Your task to perform on an android device: turn off smart reply in the gmail app Image 0: 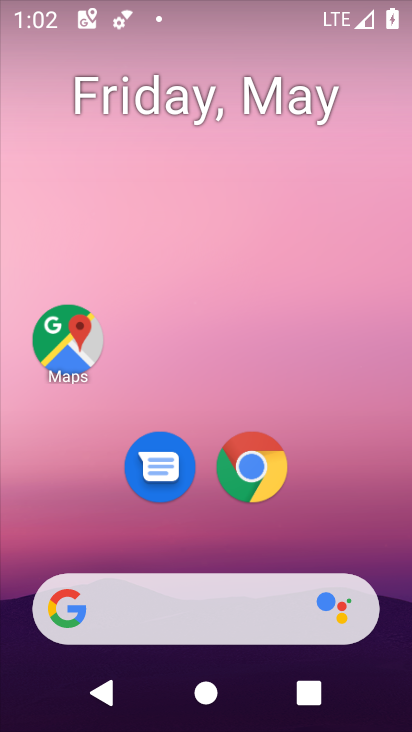
Step 0: drag from (349, 506) to (367, 31)
Your task to perform on an android device: turn off smart reply in the gmail app Image 1: 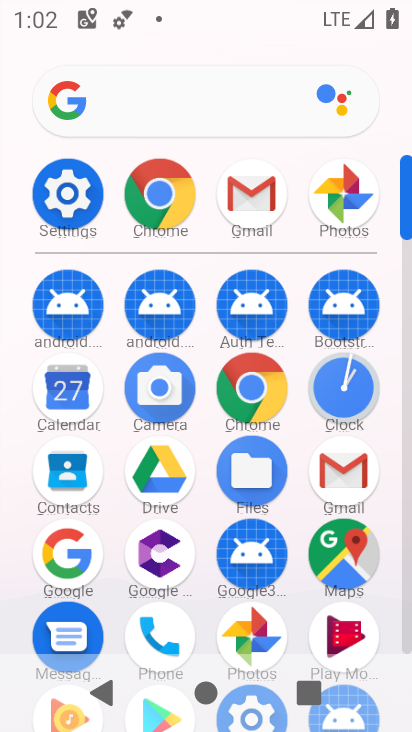
Step 1: click (264, 200)
Your task to perform on an android device: turn off smart reply in the gmail app Image 2: 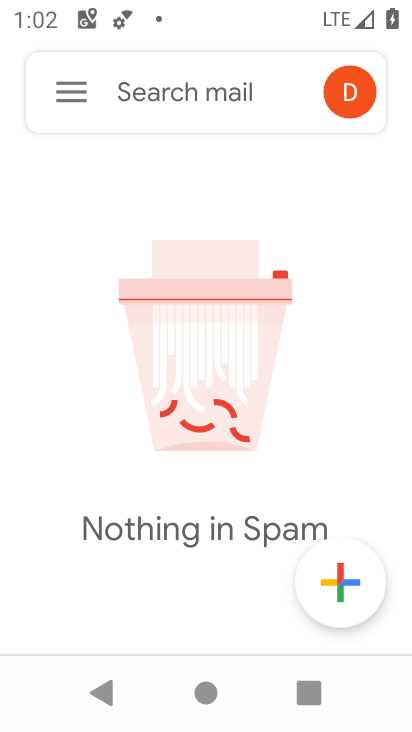
Step 2: click (79, 98)
Your task to perform on an android device: turn off smart reply in the gmail app Image 3: 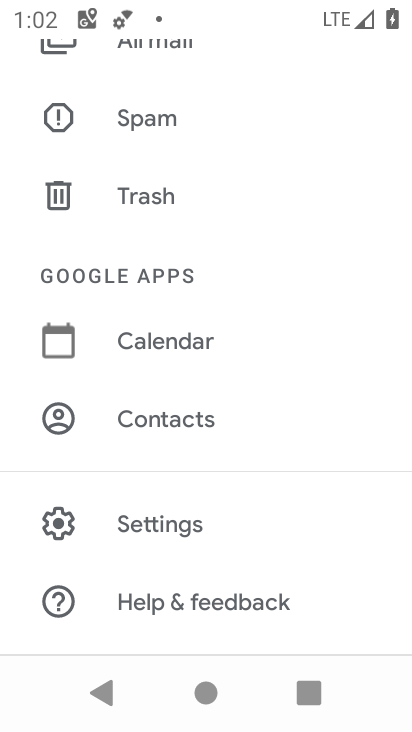
Step 3: drag from (177, 559) to (242, 182)
Your task to perform on an android device: turn off smart reply in the gmail app Image 4: 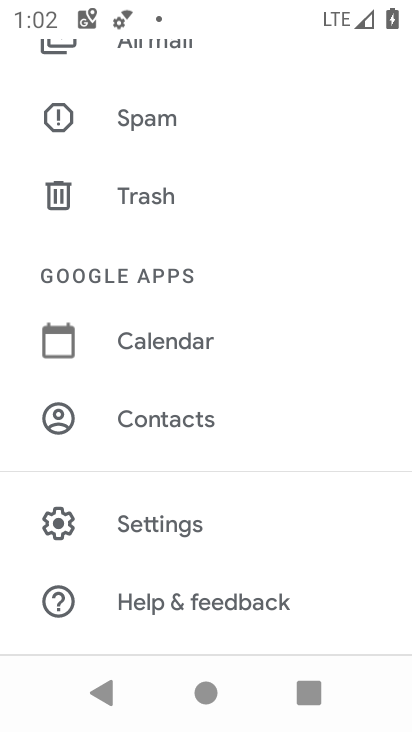
Step 4: click (160, 511)
Your task to perform on an android device: turn off smart reply in the gmail app Image 5: 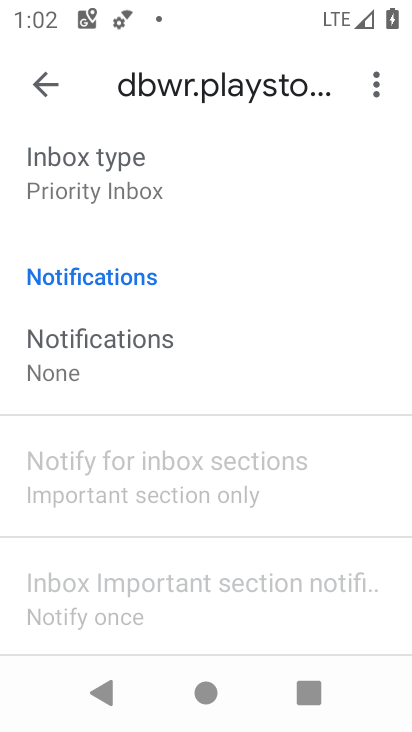
Step 5: drag from (125, 526) to (204, 72)
Your task to perform on an android device: turn off smart reply in the gmail app Image 6: 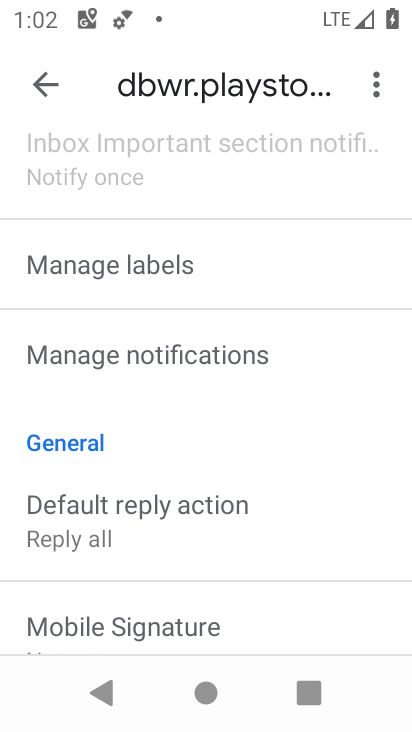
Step 6: drag from (246, 647) to (236, 201)
Your task to perform on an android device: turn off smart reply in the gmail app Image 7: 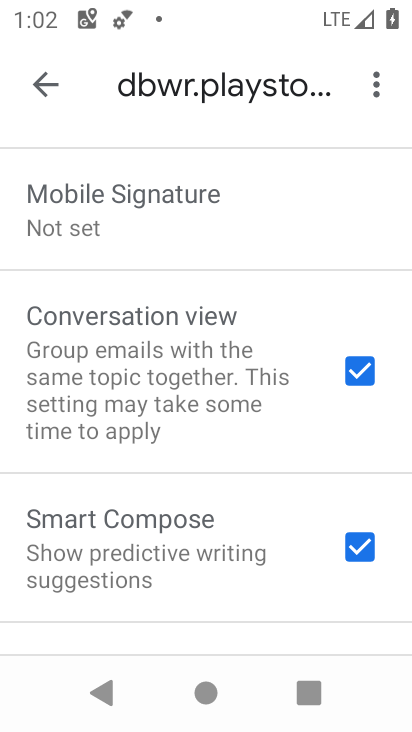
Step 7: drag from (237, 574) to (218, 169)
Your task to perform on an android device: turn off smart reply in the gmail app Image 8: 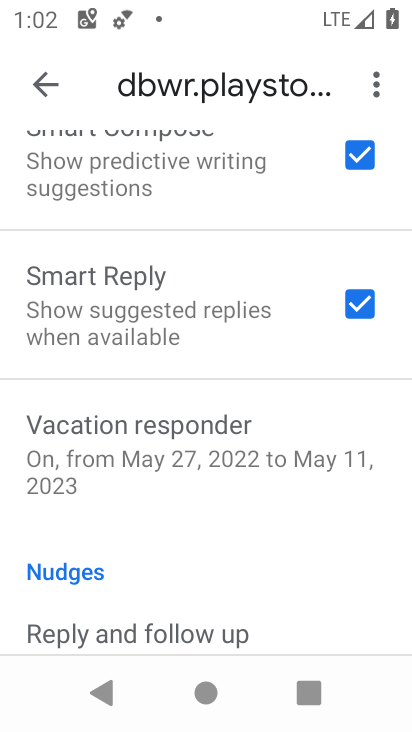
Step 8: drag from (231, 575) to (230, 175)
Your task to perform on an android device: turn off smart reply in the gmail app Image 9: 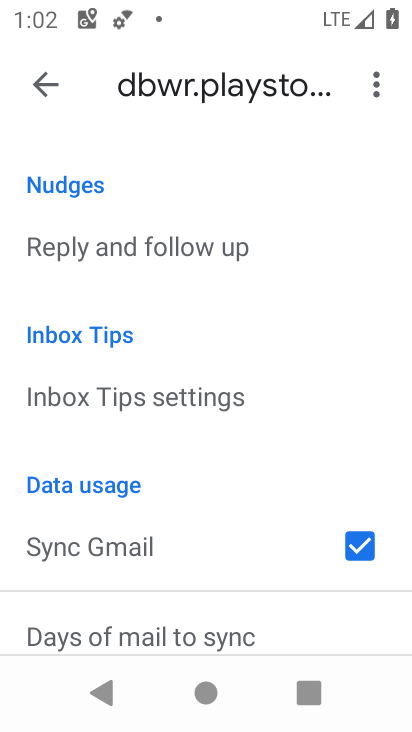
Step 9: drag from (209, 561) to (236, 125)
Your task to perform on an android device: turn off smart reply in the gmail app Image 10: 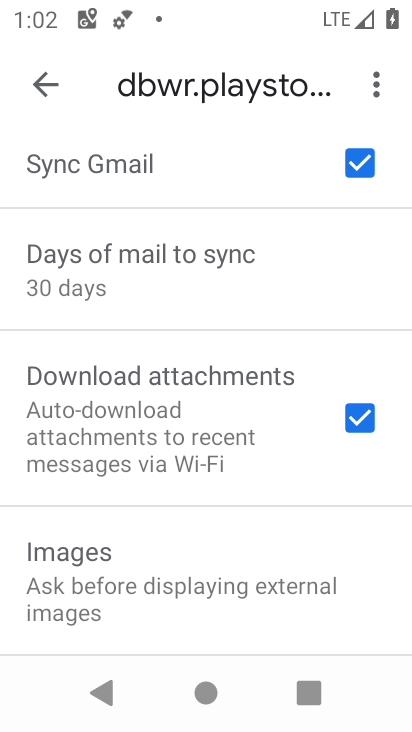
Step 10: drag from (211, 155) to (230, 541)
Your task to perform on an android device: turn off smart reply in the gmail app Image 11: 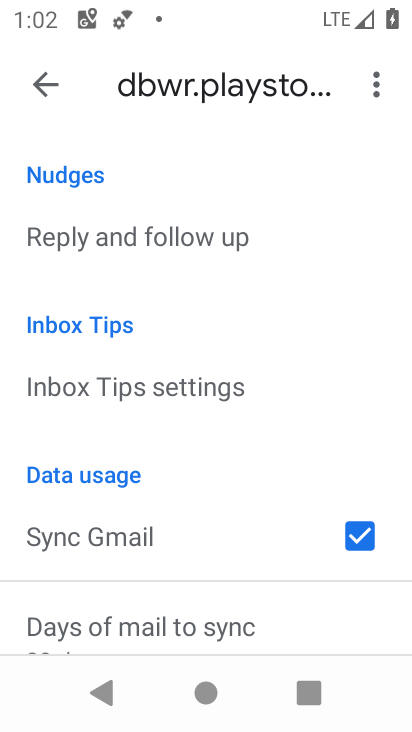
Step 11: drag from (252, 212) to (243, 609)
Your task to perform on an android device: turn off smart reply in the gmail app Image 12: 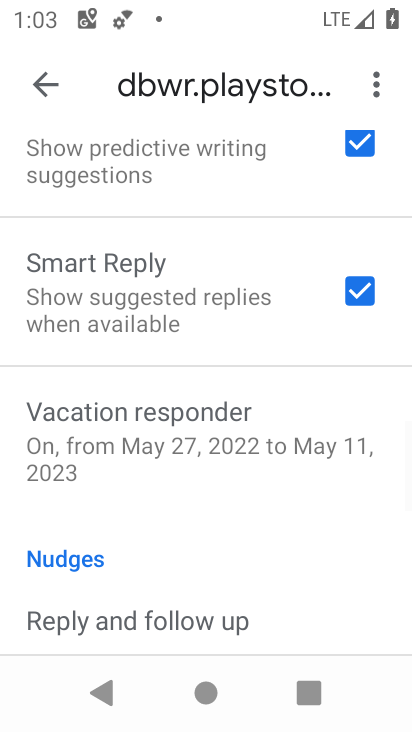
Step 12: drag from (237, 630) to (248, 279)
Your task to perform on an android device: turn off smart reply in the gmail app Image 13: 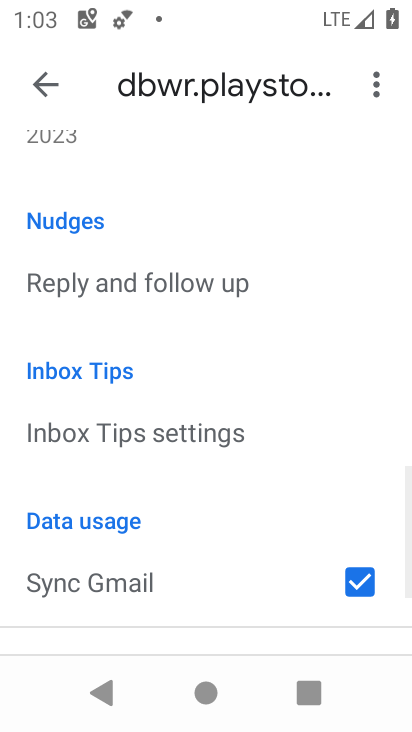
Step 13: drag from (239, 204) to (281, 601)
Your task to perform on an android device: turn off smart reply in the gmail app Image 14: 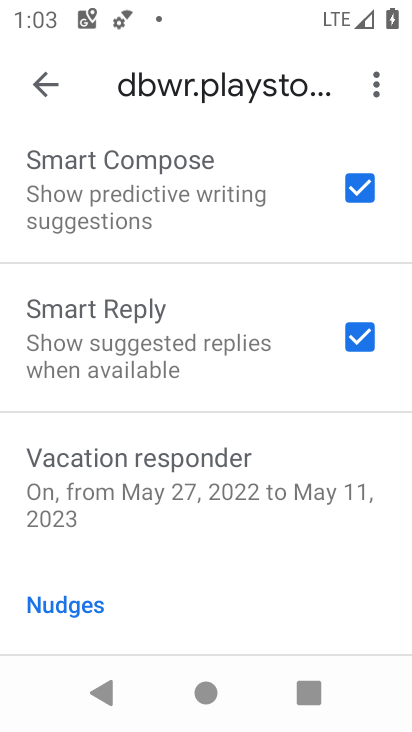
Step 14: drag from (256, 235) to (266, 614)
Your task to perform on an android device: turn off smart reply in the gmail app Image 15: 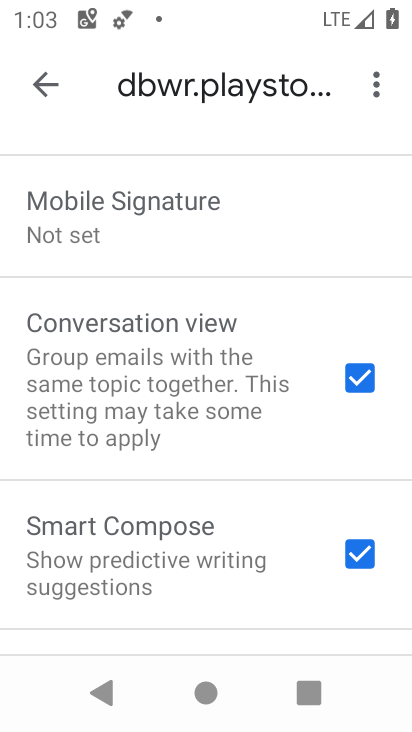
Step 15: drag from (245, 558) to (241, 442)
Your task to perform on an android device: turn off smart reply in the gmail app Image 16: 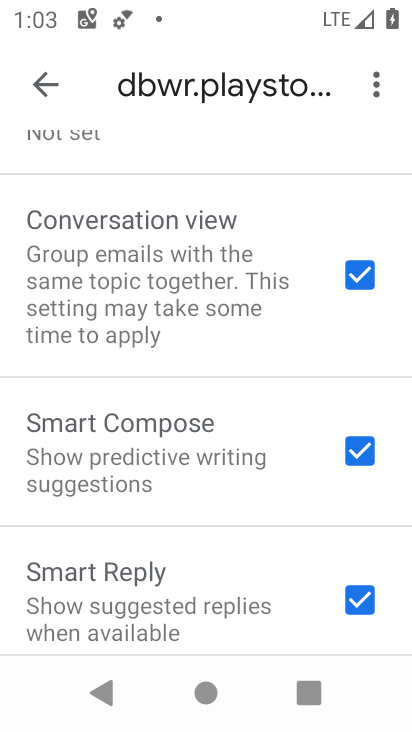
Step 16: drag from (246, 352) to (247, 297)
Your task to perform on an android device: turn off smart reply in the gmail app Image 17: 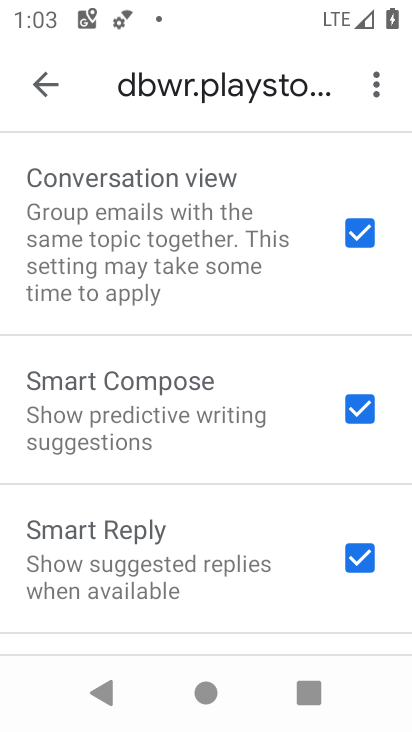
Step 17: click (349, 563)
Your task to perform on an android device: turn off smart reply in the gmail app Image 18: 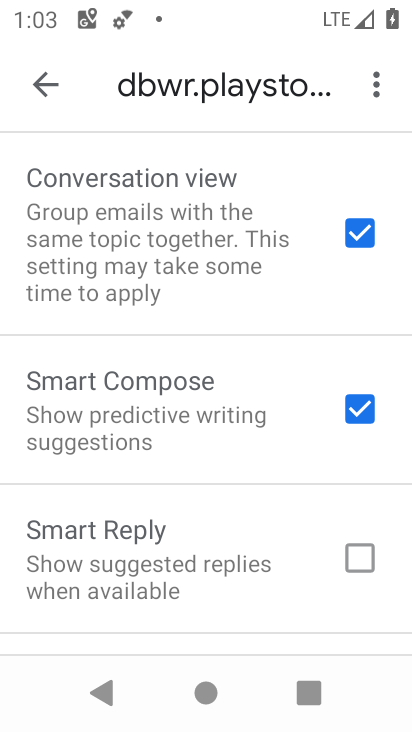
Step 18: task complete